Your task to perform on an android device: turn off data saver in the chrome app Image 0: 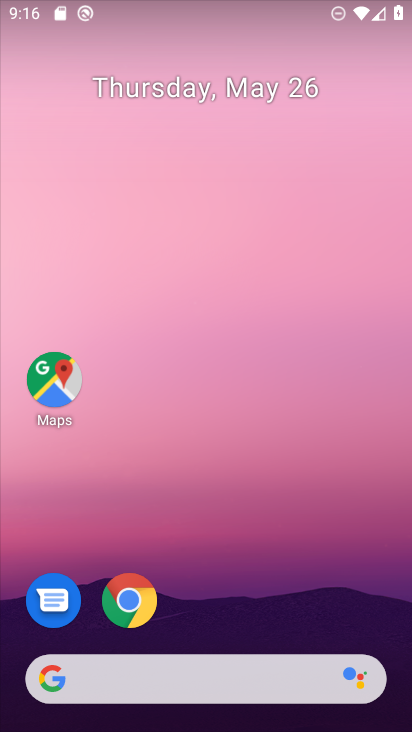
Step 0: click (141, 602)
Your task to perform on an android device: turn off data saver in the chrome app Image 1: 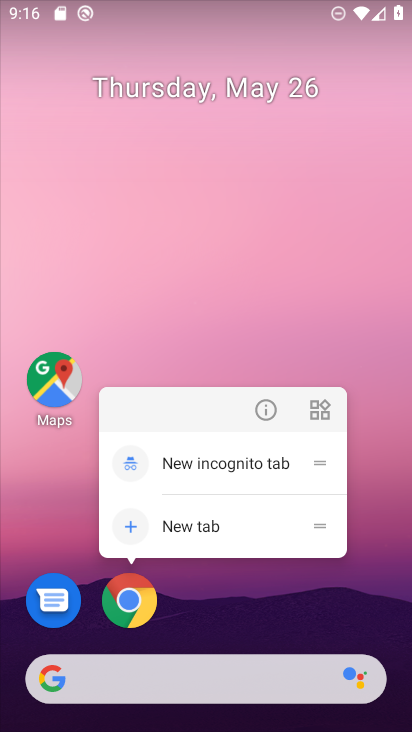
Step 1: click (126, 593)
Your task to perform on an android device: turn off data saver in the chrome app Image 2: 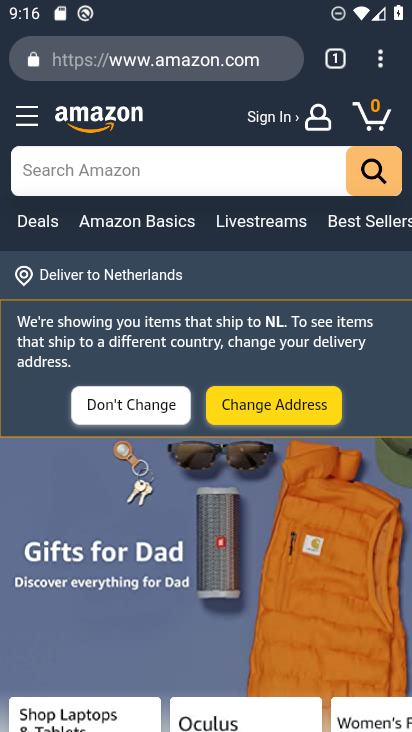
Step 2: click (376, 59)
Your task to perform on an android device: turn off data saver in the chrome app Image 3: 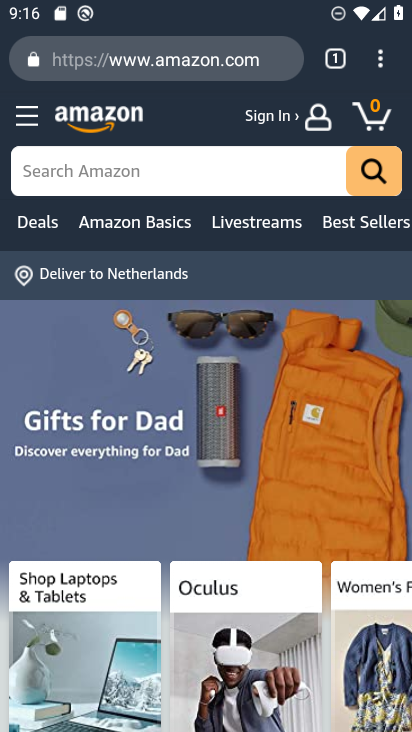
Step 3: click (382, 64)
Your task to perform on an android device: turn off data saver in the chrome app Image 4: 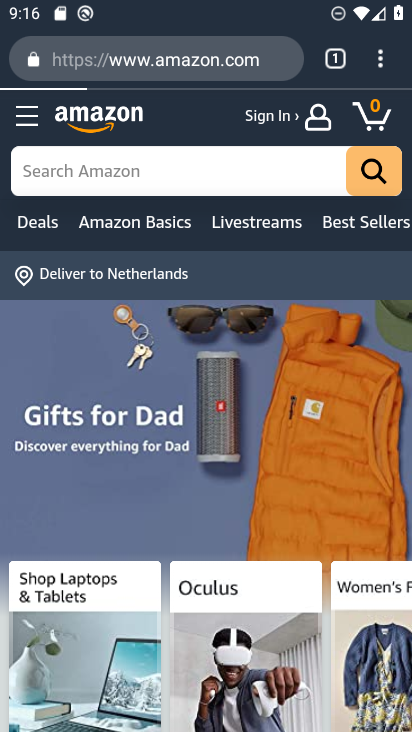
Step 4: click (382, 64)
Your task to perform on an android device: turn off data saver in the chrome app Image 5: 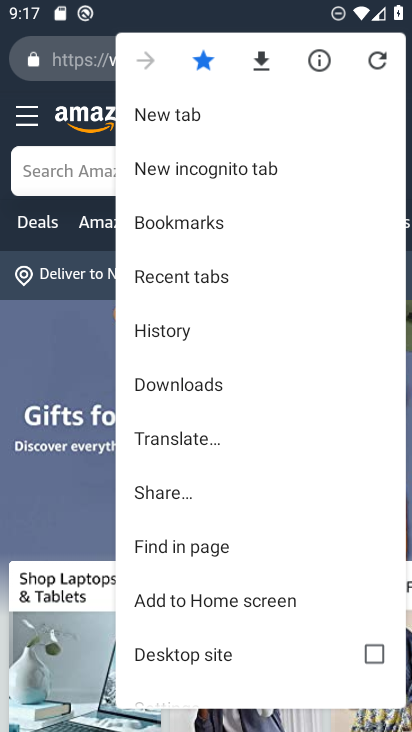
Step 5: drag from (204, 676) to (215, 249)
Your task to perform on an android device: turn off data saver in the chrome app Image 6: 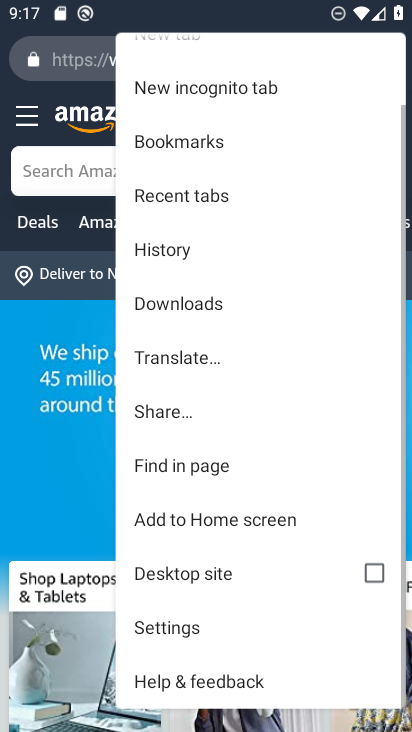
Step 6: click (173, 616)
Your task to perform on an android device: turn off data saver in the chrome app Image 7: 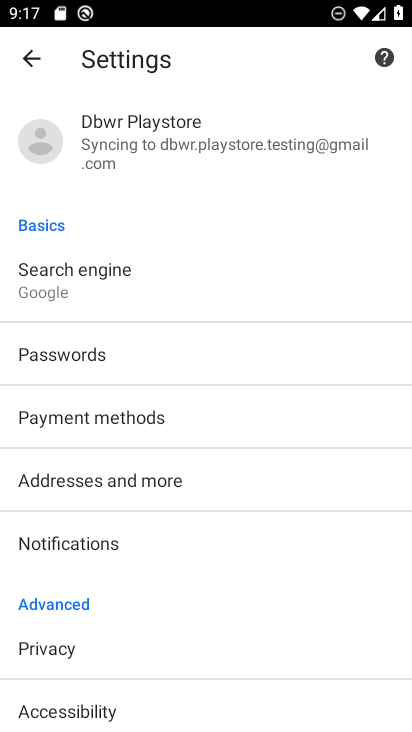
Step 7: drag from (48, 716) to (89, 379)
Your task to perform on an android device: turn off data saver in the chrome app Image 8: 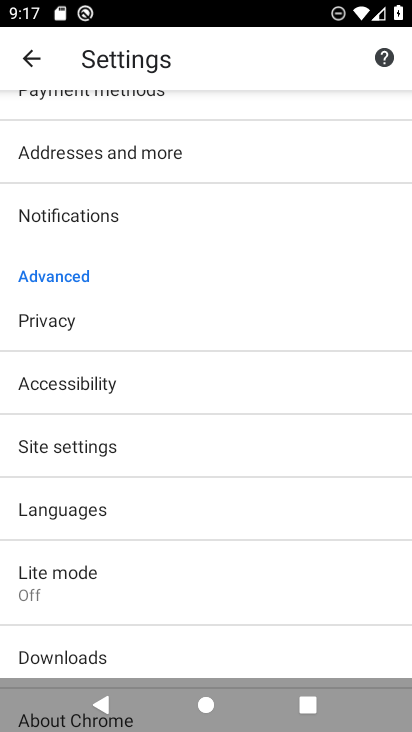
Step 8: click (70, 579)
Your task to perform on an android device: turn off data saver in the chrome app Image 9: 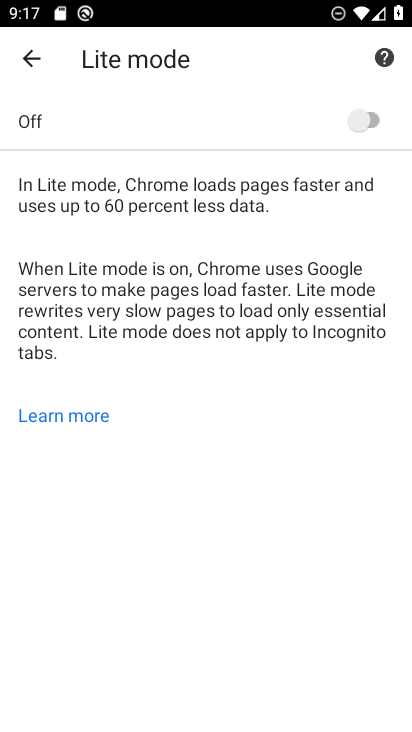
Step 9: task complete